Your task to perform on an android device: delete a single message in the gmail app Image 0: 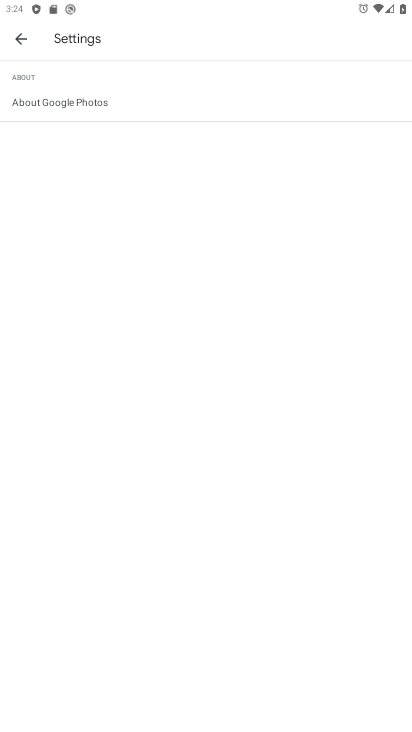
Step 0: press home button
Your task to perform on an android device: delete a single message in the gmail app Image 1: 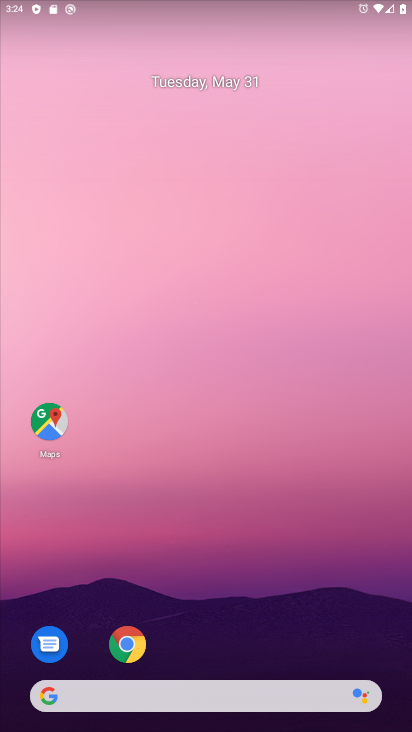
Step 1: drag from (263, 518) to (224, 132)
Your task to perform on an android device: delete a single message in the gmail app Image 2: 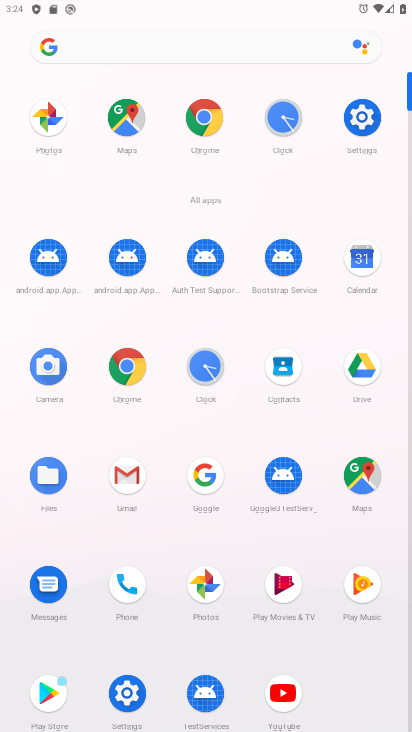
Step 2: click (361, 128)
Your task to perform on an android device: delete a single message in the gmail app Image 3: 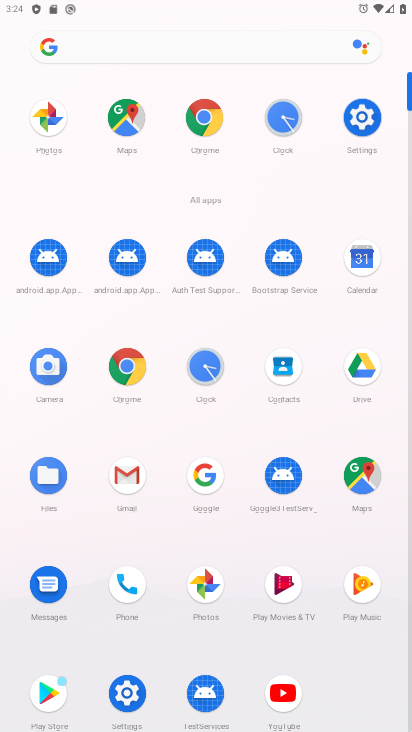
Step 3: click (361, 128)
Your task to perform on an android device: delete a single message in the gmail app Image 4: 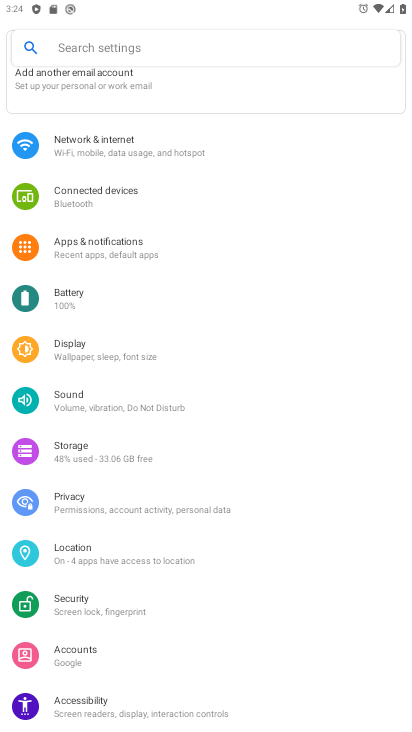
Step 4: press home button
Your task to perform on an android device: delete a single message in the gmail app Image 5: 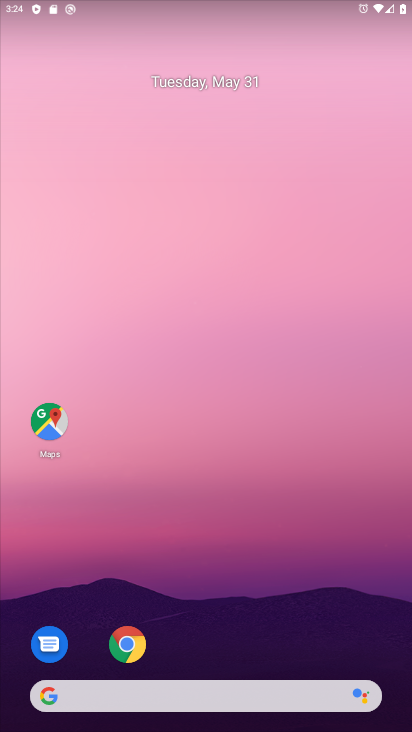
Step 5: drag from (235, 634) to (240, 138)
Your task to perform on an android device: delete a single message in the gmail app Image 6: 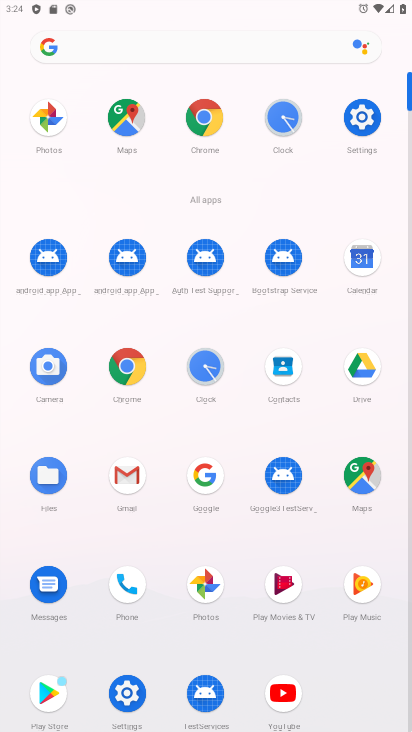
Step 6: click (114, 491)
Your task to perform on an android device: delete a single message in the gmail app Image 7: 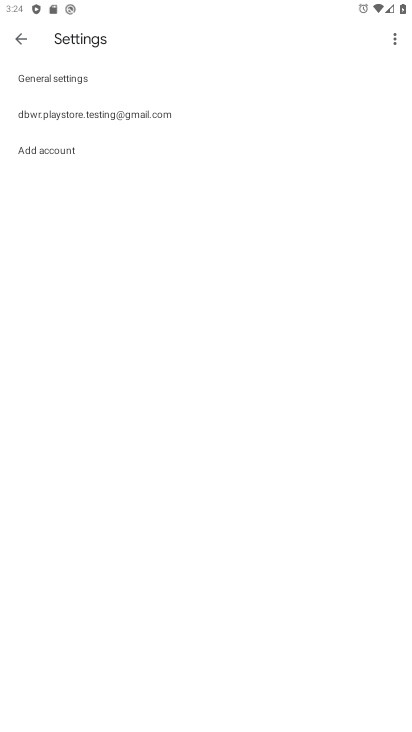
Step 7: click (15, 42)
Your task to perform on an android device: delete a single message in the gmail app Image 8: 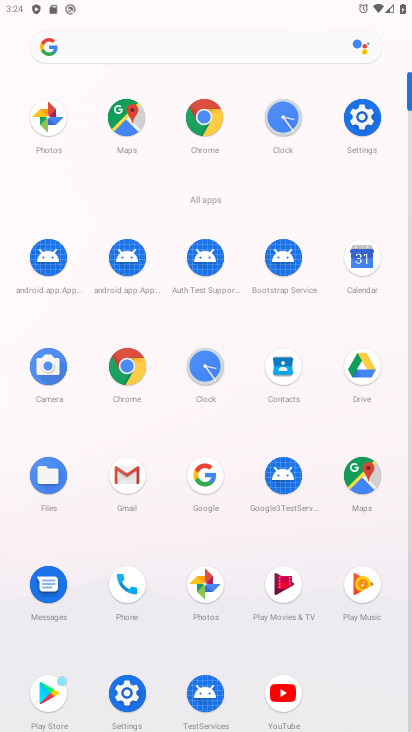
Step 8: click (139, 482)
Your task to perform on an android device: delete a single message in the gmail app Image 9: 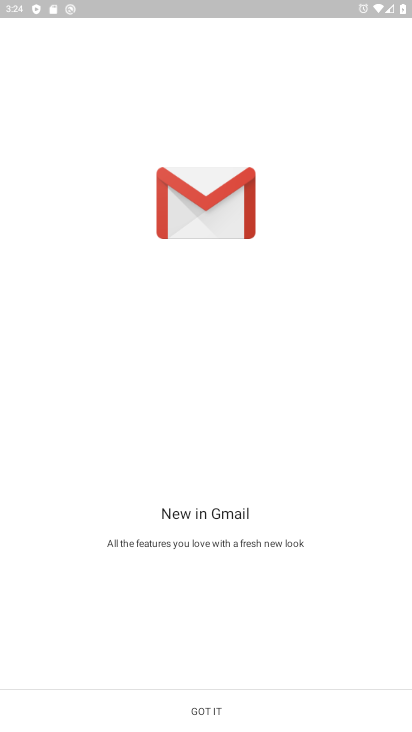
Step 9: click (210, 708)
Your task to perform on an android device: delete a single message in the gmail app Image 10: 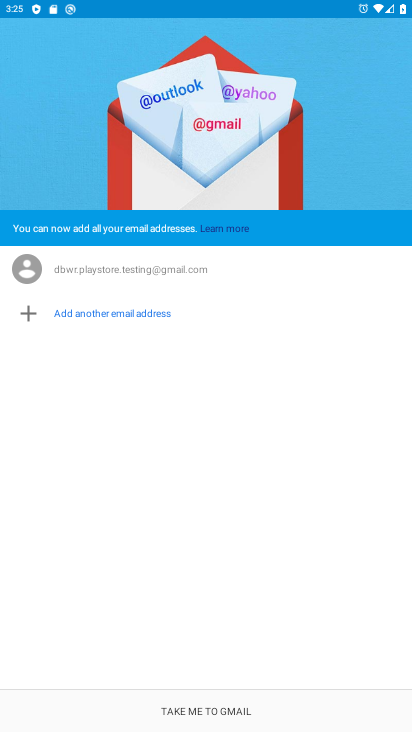
Step 10: click (187, 713)
Your task to perform on an android device: delete a single message in the gmail app Image 11: 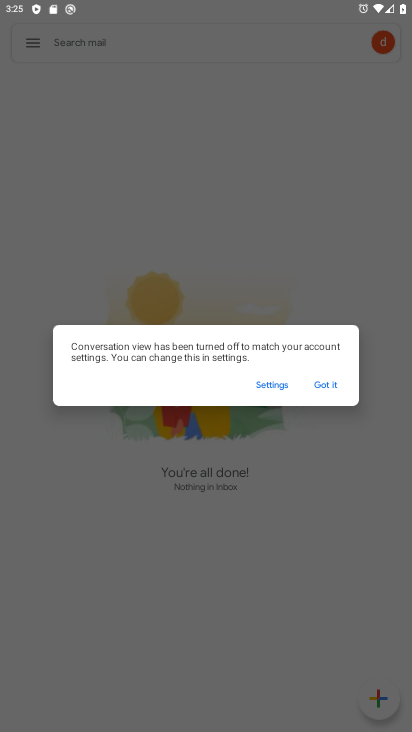
Step 11: click (332, 386)
Your task to perform on an android device: delete a single message in the gmail app Image 12: 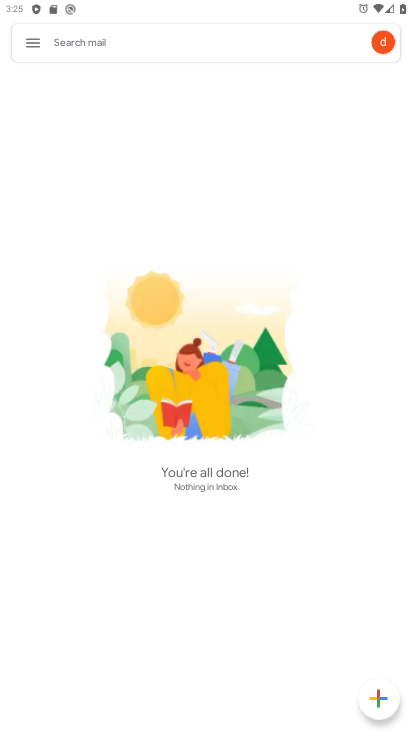
Step 12: click (38, 40)
Your task to perform on an android device: delete a single message in the gmail app Image 13: 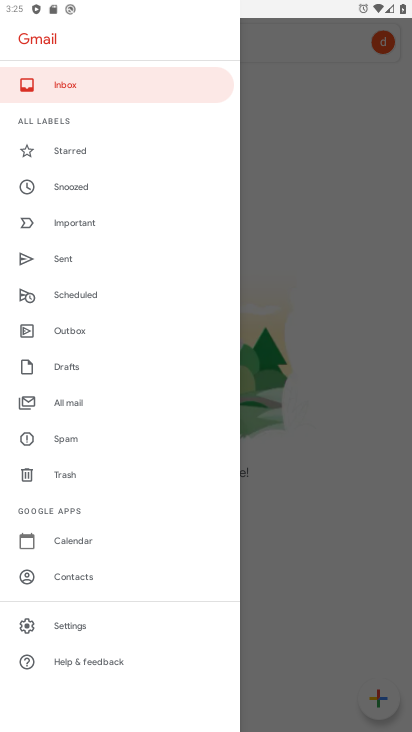
Step 13: click (78, 395)
Your task to perform on an android device: delete a single message in the gmail app Image 14: 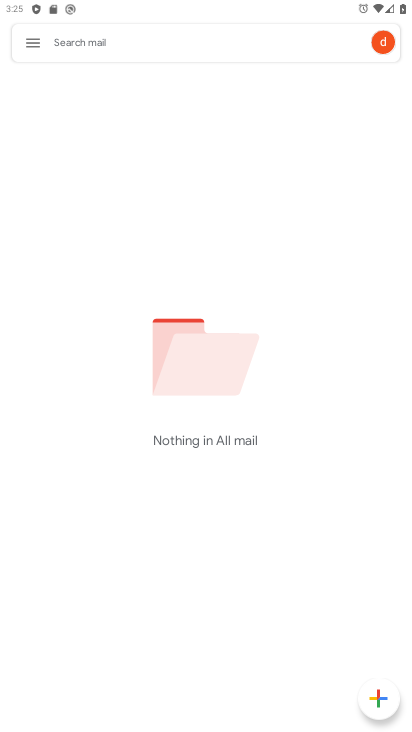
Step 14: task complete